Your task to perform on an android device: Do I have any events tomorrow? Image 0: 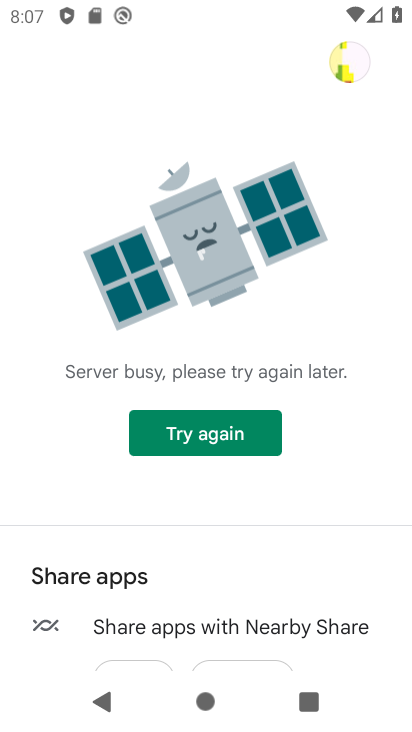
Step 0: press home button
Your task to perform on an android device: Do I have any events tomorrow? Image 1: 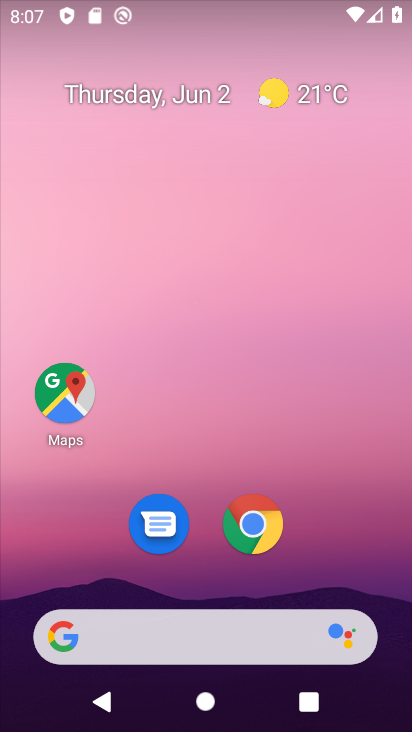
Step 1: drag from (228, 467) to (186, 0)
Your task to perform on an android device: Do I have any events tomorrow? Image 2: 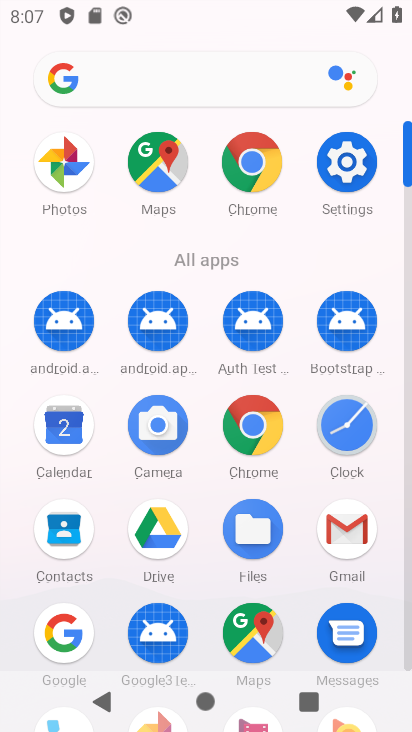
Step 2: click (73, 423)
Your task to perform on an android device: Do I have any events tomorrow? Image 3: 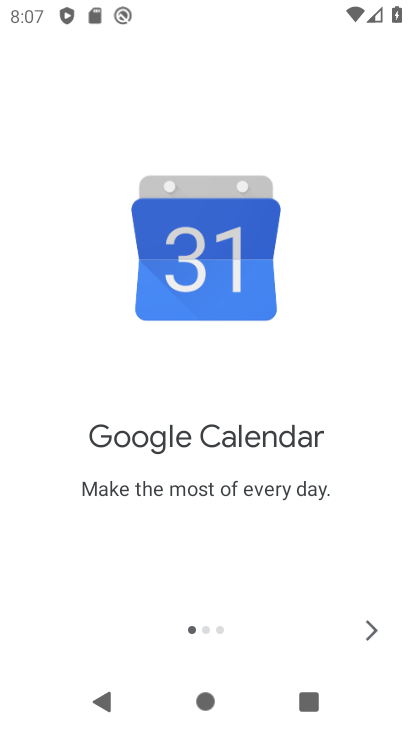
Step 3: click (364, 629)
Your task to perform on an android device: Do I have any events tomorrow? Image 4: 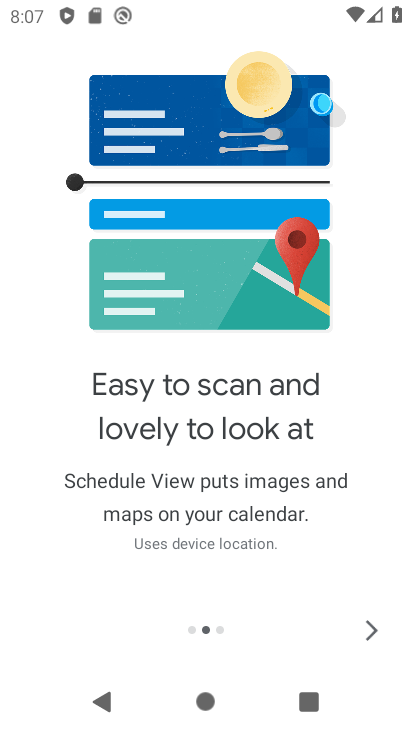
Step 4: click (364, 629)
Your task to perform on an android device: Do I have any events tomorrow? Image 5: 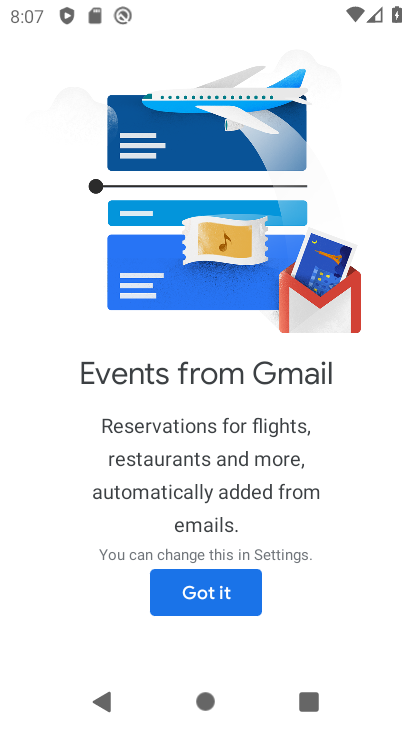
Step 5: click (244, 596)
Your task to perform on an android device: Do I have any events tomorrow? Image 6: 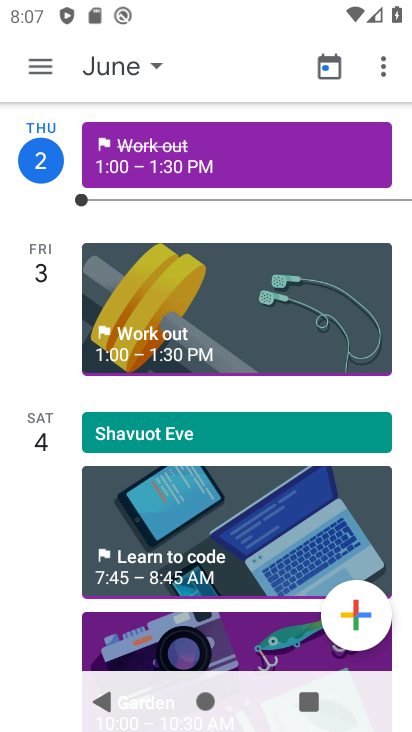
Step 6: task complete